Your task to perform on an android device: turn off wifi Image 0: 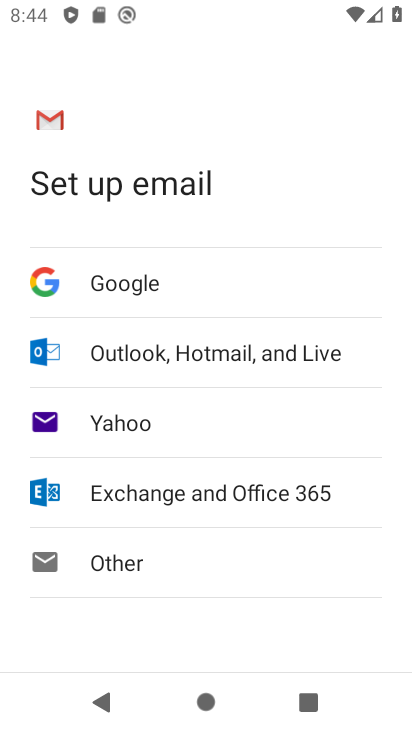
Step 0: press back button
Your task to perform on an android device: turn off wifi Image 1: 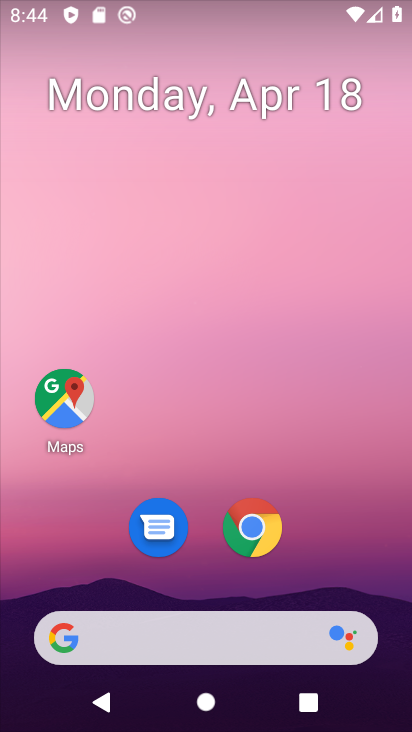
Step 1: drag from (345, 487) to (239, 35)
Your task to perform on an android device: turn off wifi Image 2: 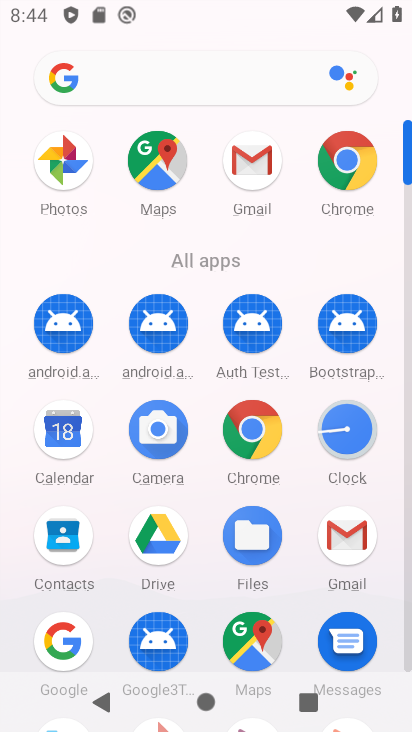
Step 2: drag from (11, 511) to (12, 232)
Your task to perform on an android device: turn off wifi Image 3: 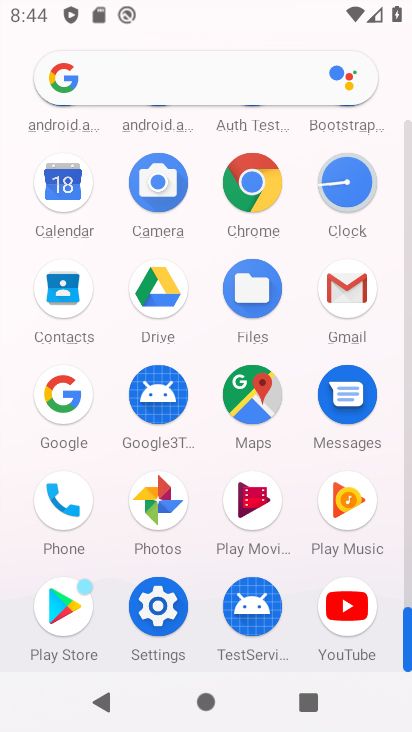
Step 3: click (157, 605)
Your task to perform on an android device: turn off wifi Image 4: 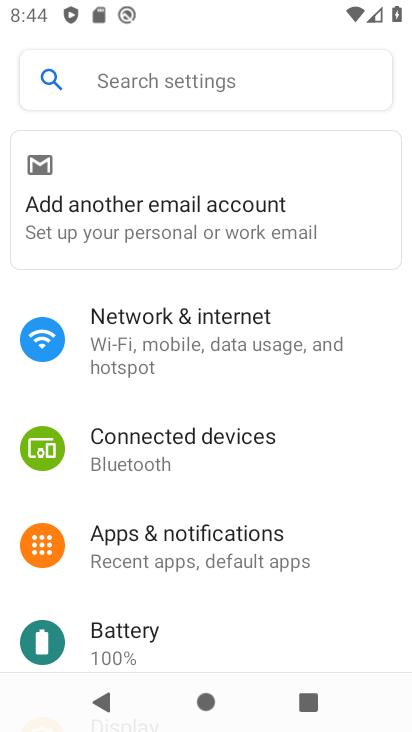
Step 4: click (229, 345)
Your task to perform on an android device: turn off wifi Image 5: 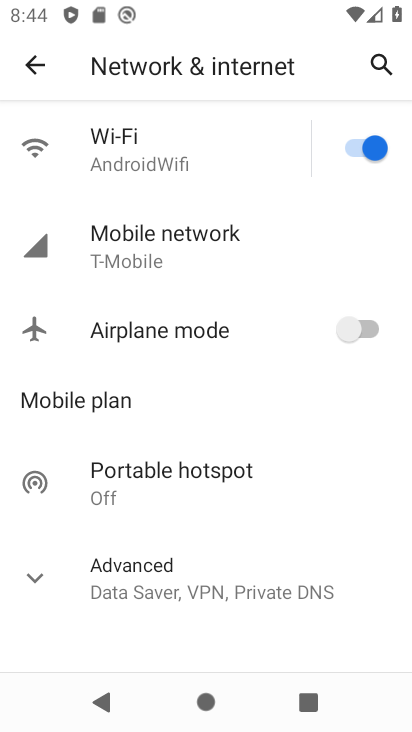
Step 5: click (358, 136)
Your task to perform on an android device: turn off wifi Image 6: 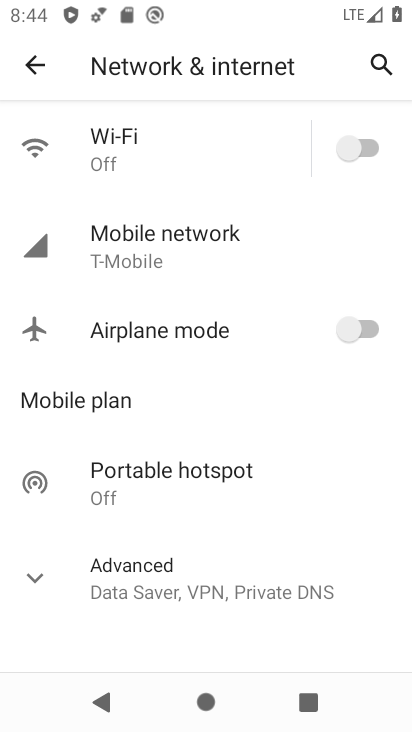
Step 6: task complete